Your task to perform on an android device: choose inbox layout in the gmail app Image 0: 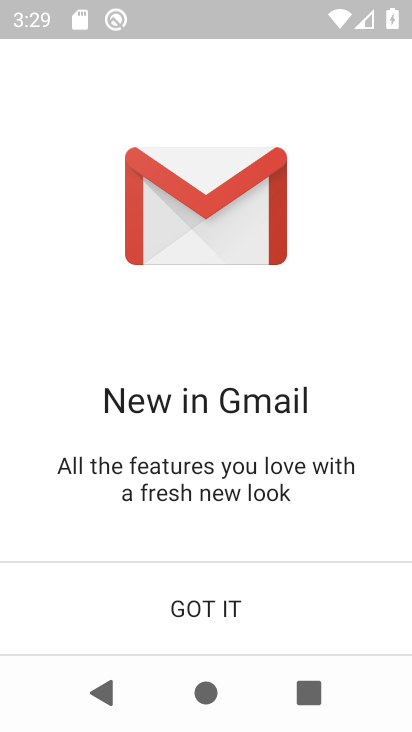
Step 0: press home button
Your task to perform on an android device: choose inbox layout in the gmail app Image 1: 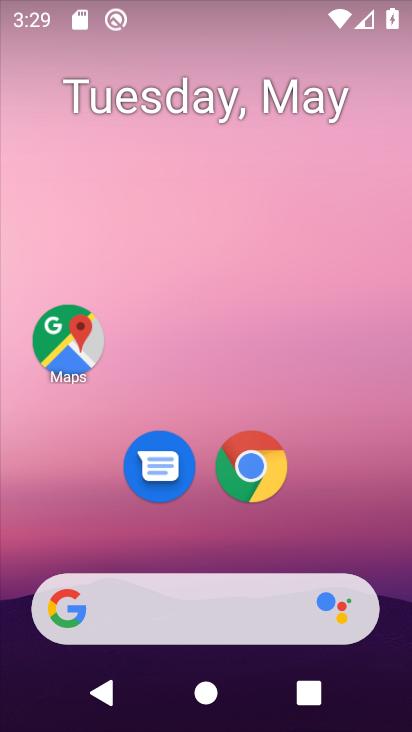
Step 1: drag from (284, 508) to (328, 82)
Your task to perform on an android device: choose inbox layout in the gmail app Image 2: 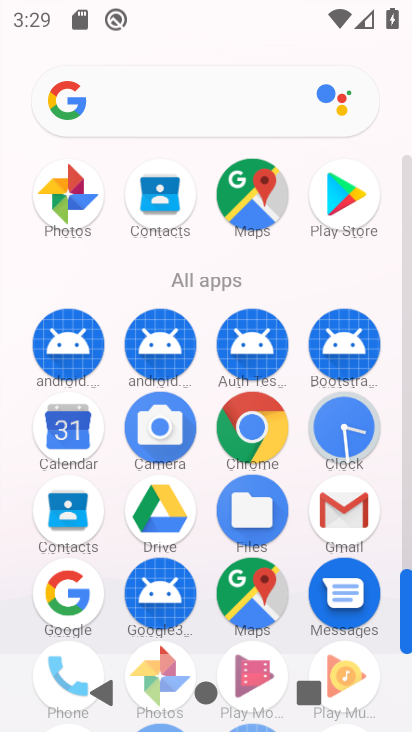
Step 2: click (359, 507)
Your task to perform on an android device: choose inbox layout in the gmail app Image 3: 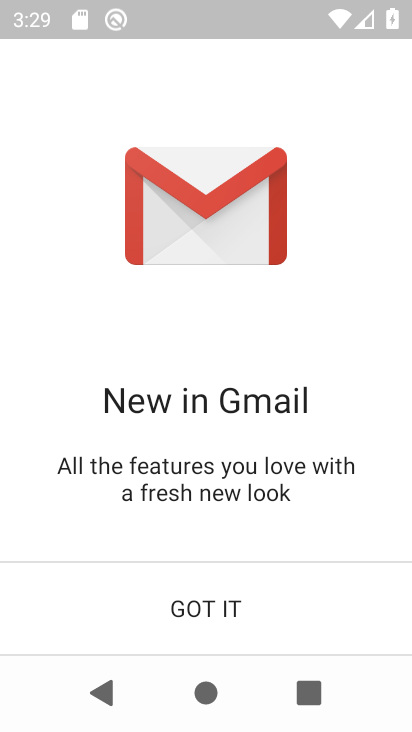
Step 3: click (243, 617)
Your task to perform on an android device: choose inbox layout in the gmail app Image 4: 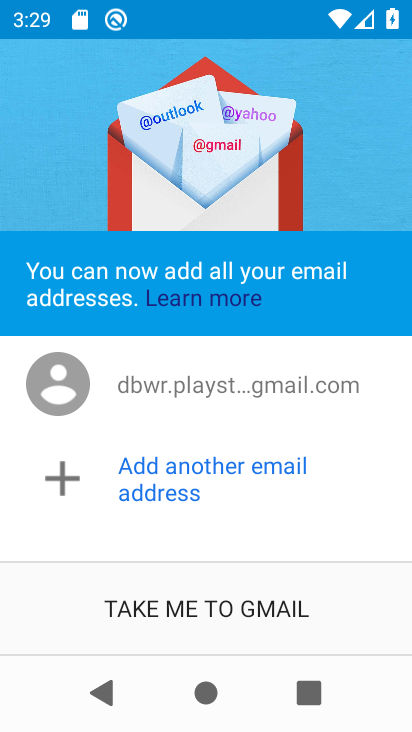
Step 4: click (243, 617)
Your task to perform on an android device: choose inbox layout in the gmail app Image 5: 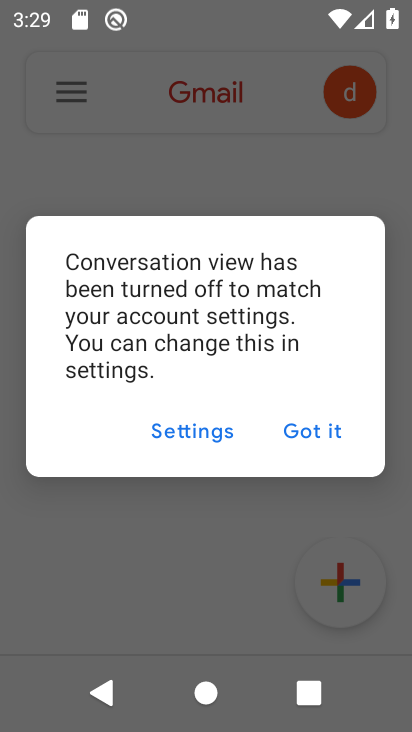
Step 5: click (291, 427)
Your task to perform on an android device: choose inbox layout in the gmail app Image 6: 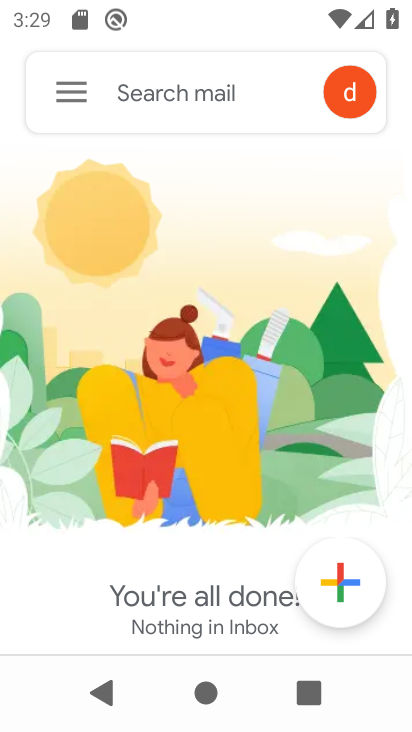
Step 6: click (56, 85)
Your task to perform on an android device: choose inbox layout in the gmail app Image 7: 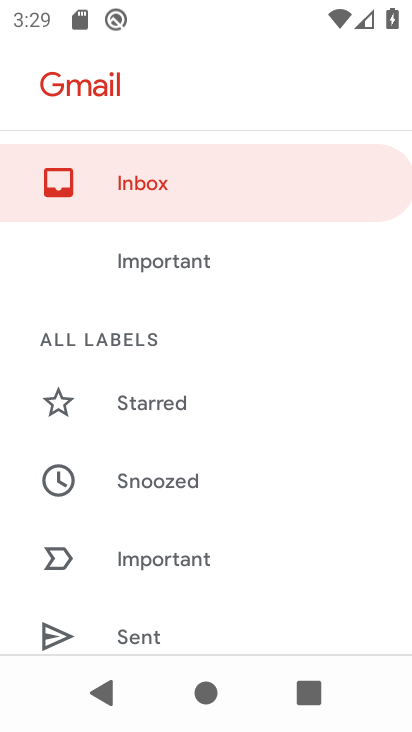
Step 7: drag from (260, 600) to (305, 218)
Your task to perform on an android device: choose inbox layout in the gmail app Image 8: 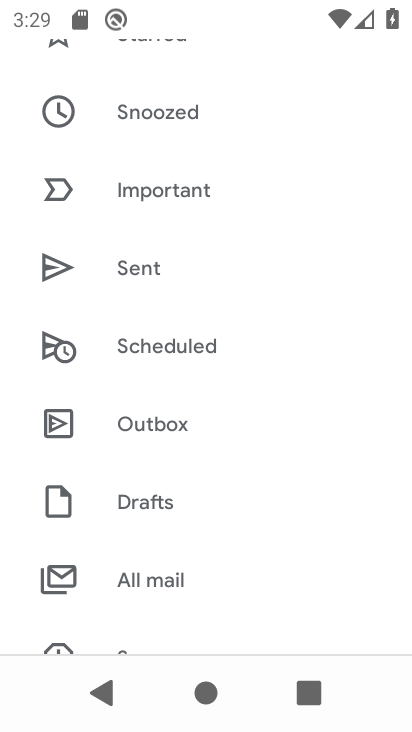
Step 8: drag from (276, 569) to (323, 105)
Your task to perform on an android device: choose inbox layout in the gmail app Image 9: 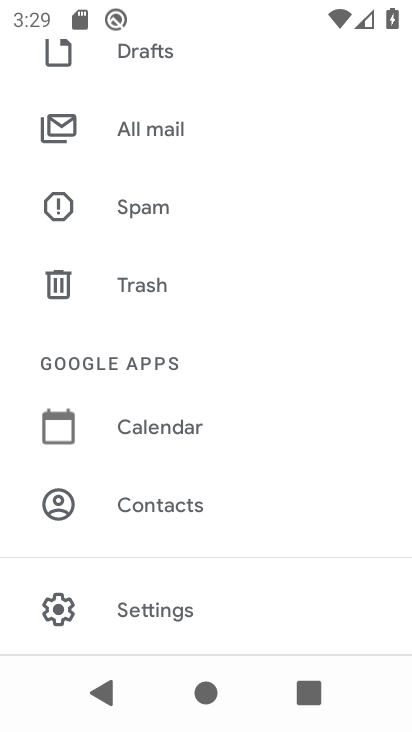
Step 9: click (147, 606)
Your task to perform on an android device: choose inbox layout in the gmail app Image 10: 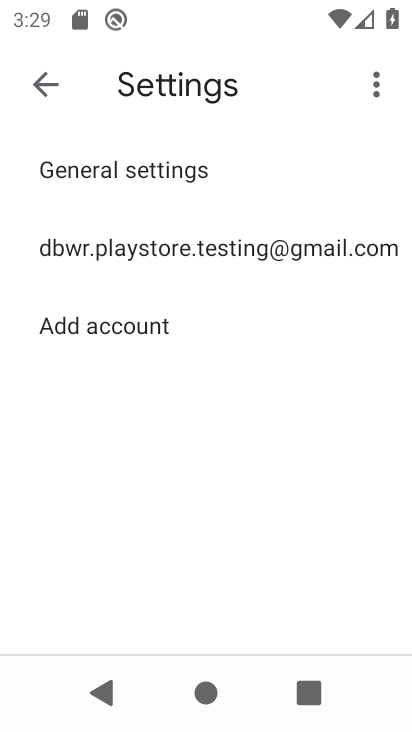
Step 10: click (199, 246)
Your task to perform on an android device: choose inbox layout in the gmail app Image 11: 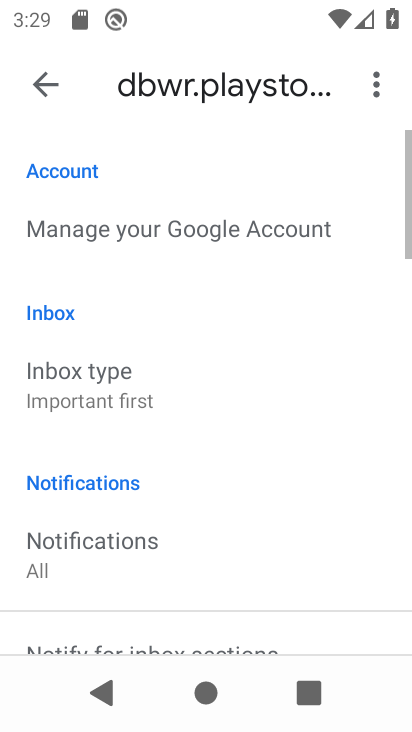
Step 11: click (59, 384)
Your task to perform on an android device: choose inbox layout in the gmail app Image 12: 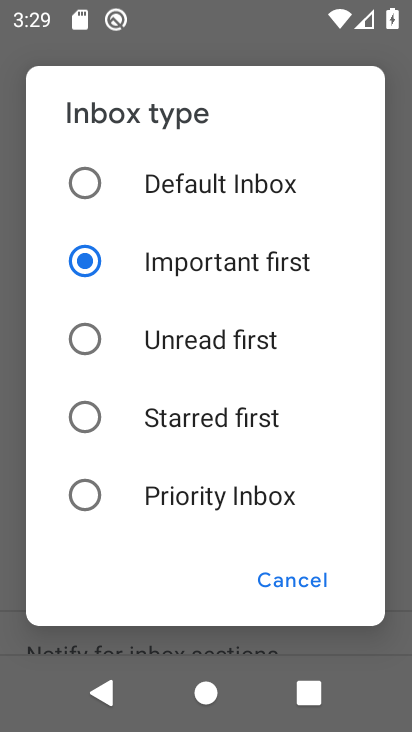
Step 12: click (187, 486)
Your task to perform on an android device: choose inbox layout in the gmail app Image 13: 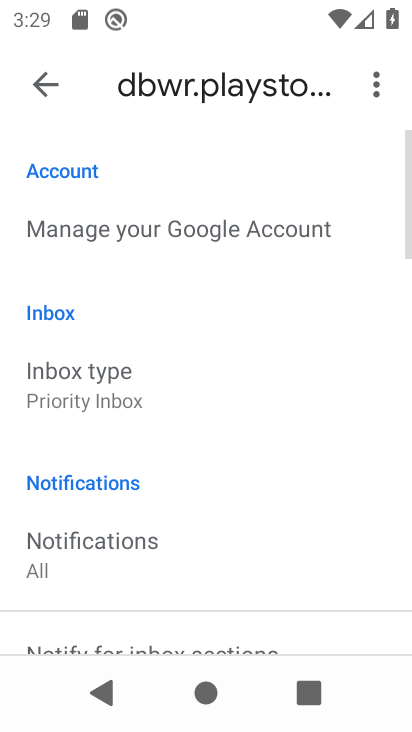
Step 13: task complete